Your task to perform on an android device: Open calendar and show me the third week of next month Image 0: 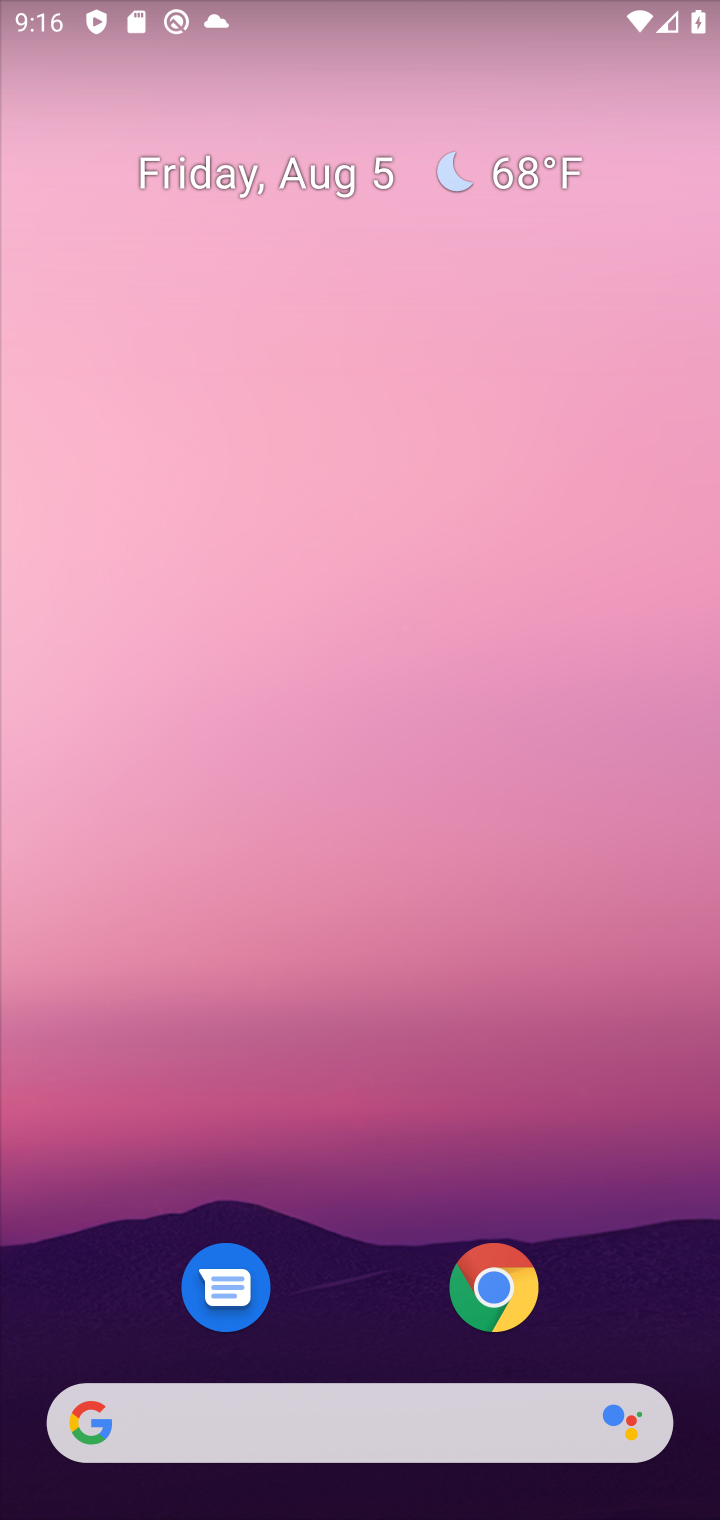
Step 0: drag from (379, 999) to (352, 219)
Your task to perform on an android device: Open calendar and show me the third week of next month Image 1: 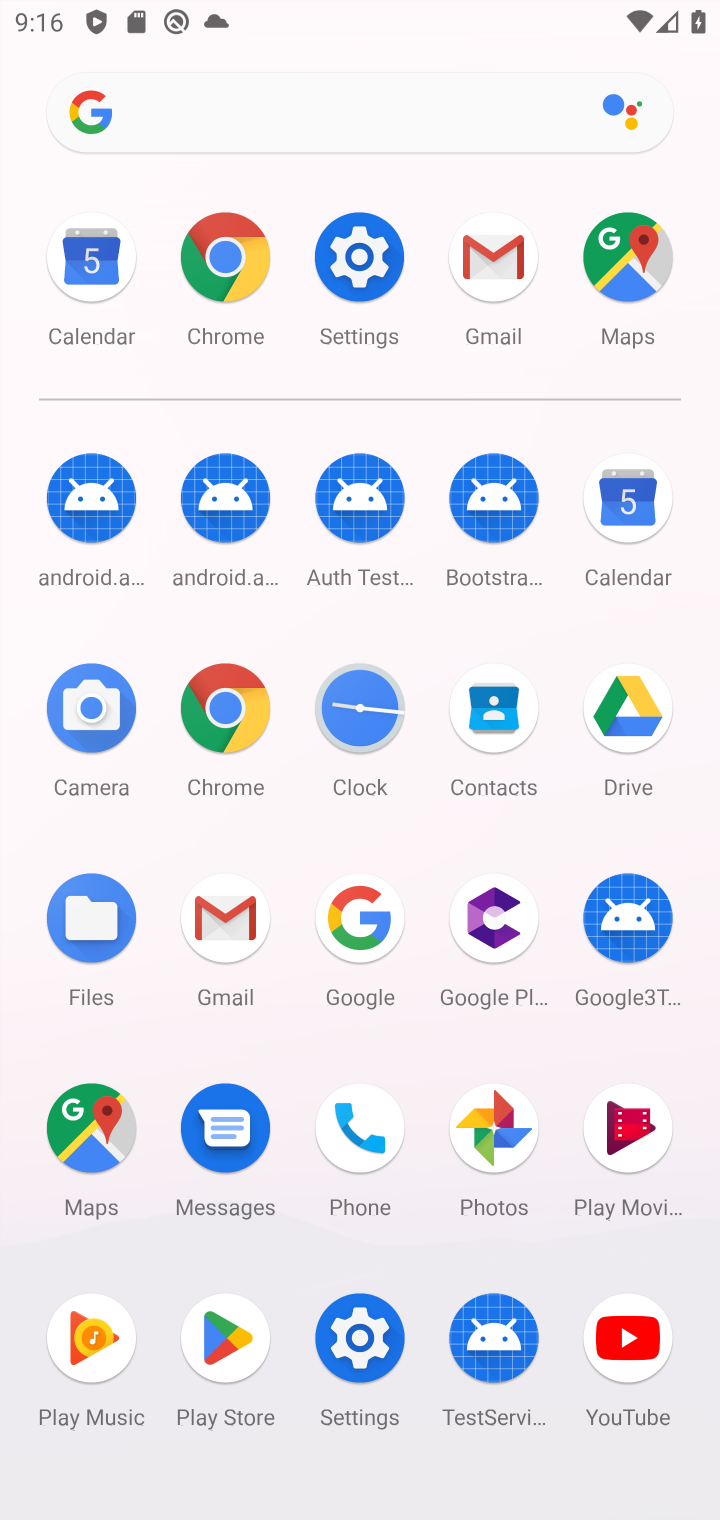
Step 1: click (621, 505)
Your task to perform on an android device: Open calendar and show me the third week of next month Image 2: 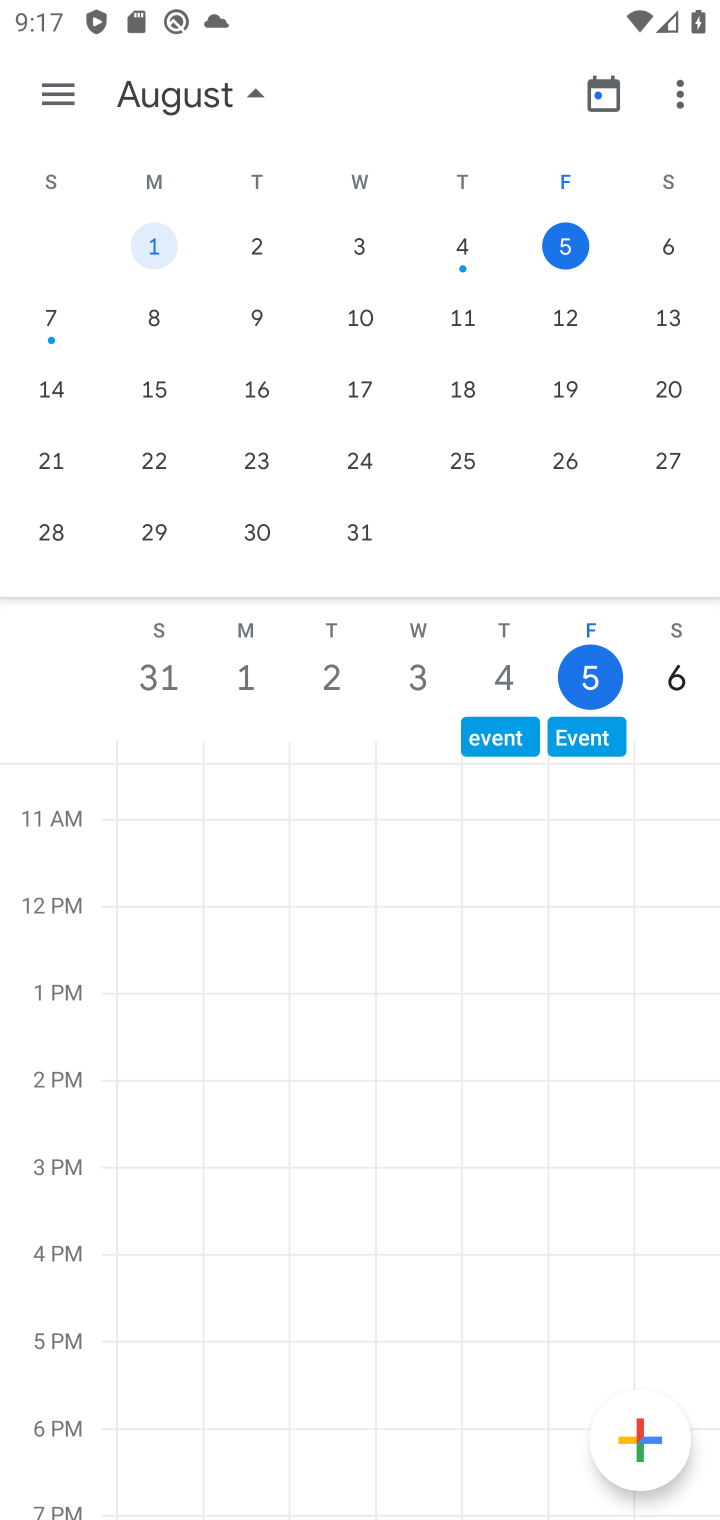
Step 2: drag from (575, 368) to (130, 360)
Your task to perform on an android device: Open calendar and show me the third week of next month Image 3: 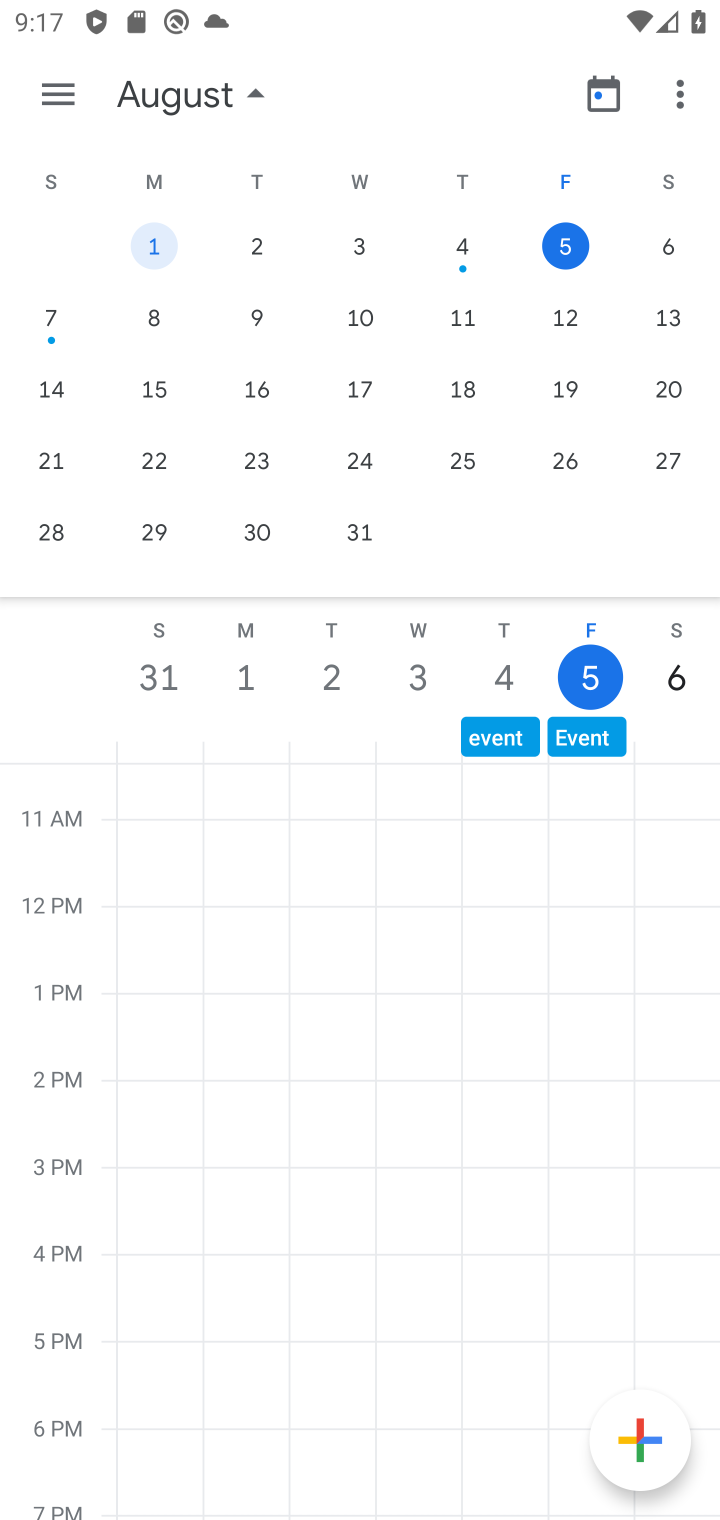
Step 3: click (162, 385)
Your task to perform on an android device: Open calendar and show me the third week of next month Image 4: 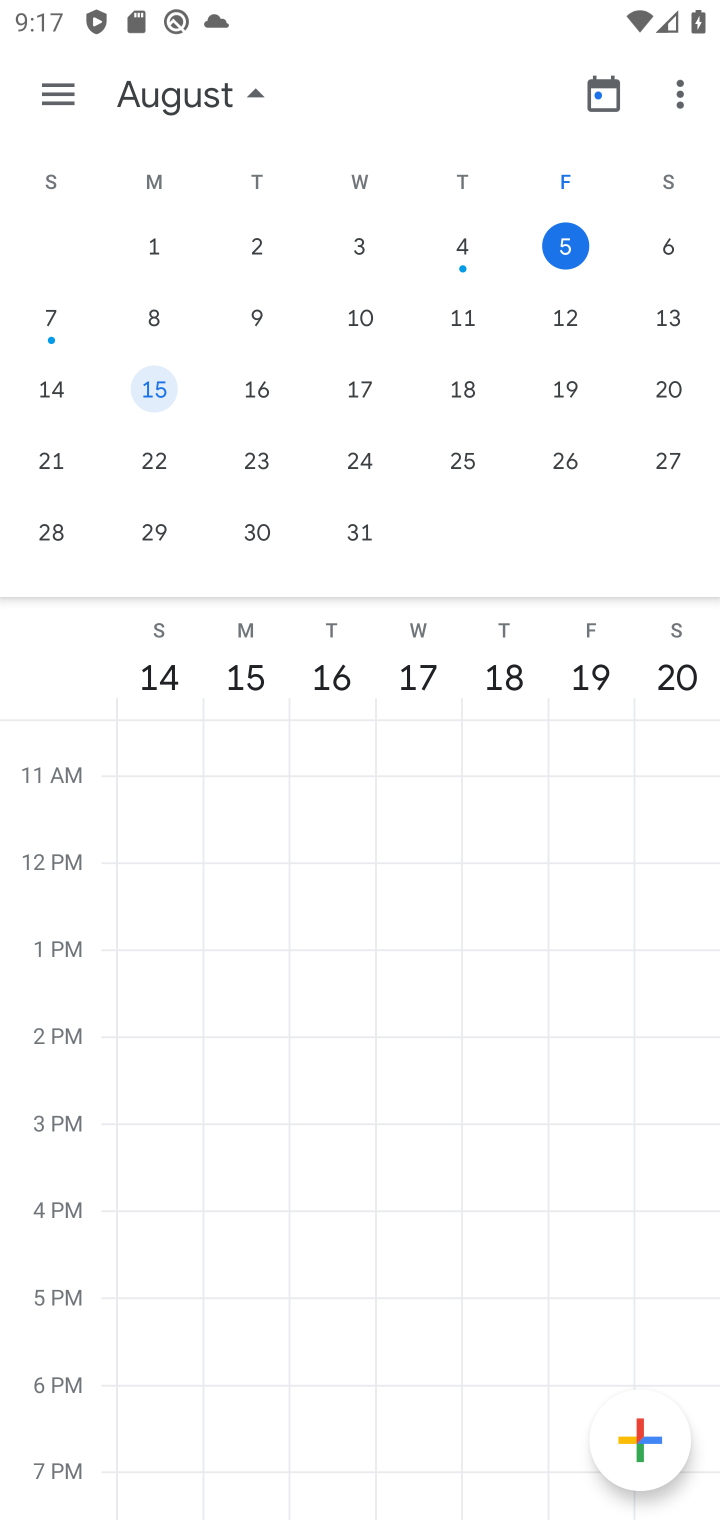
Step 4: click (155, 386)
Your task to perform on an android device: Open calendar and show me the third week of next month Image 5: 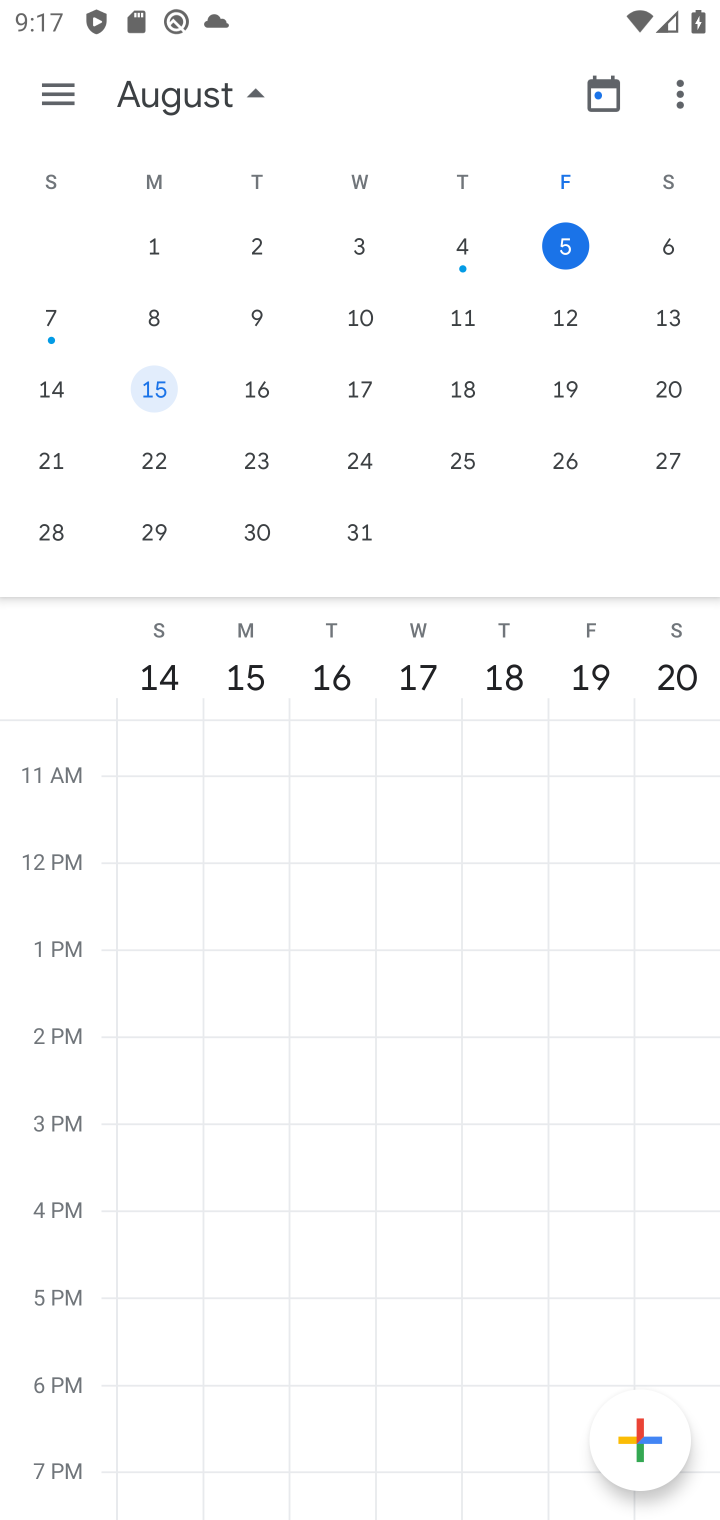
Step 5: click (53, 92)
Your task to perform on an android device: Open calendar and show me the third week of next month Image 6: 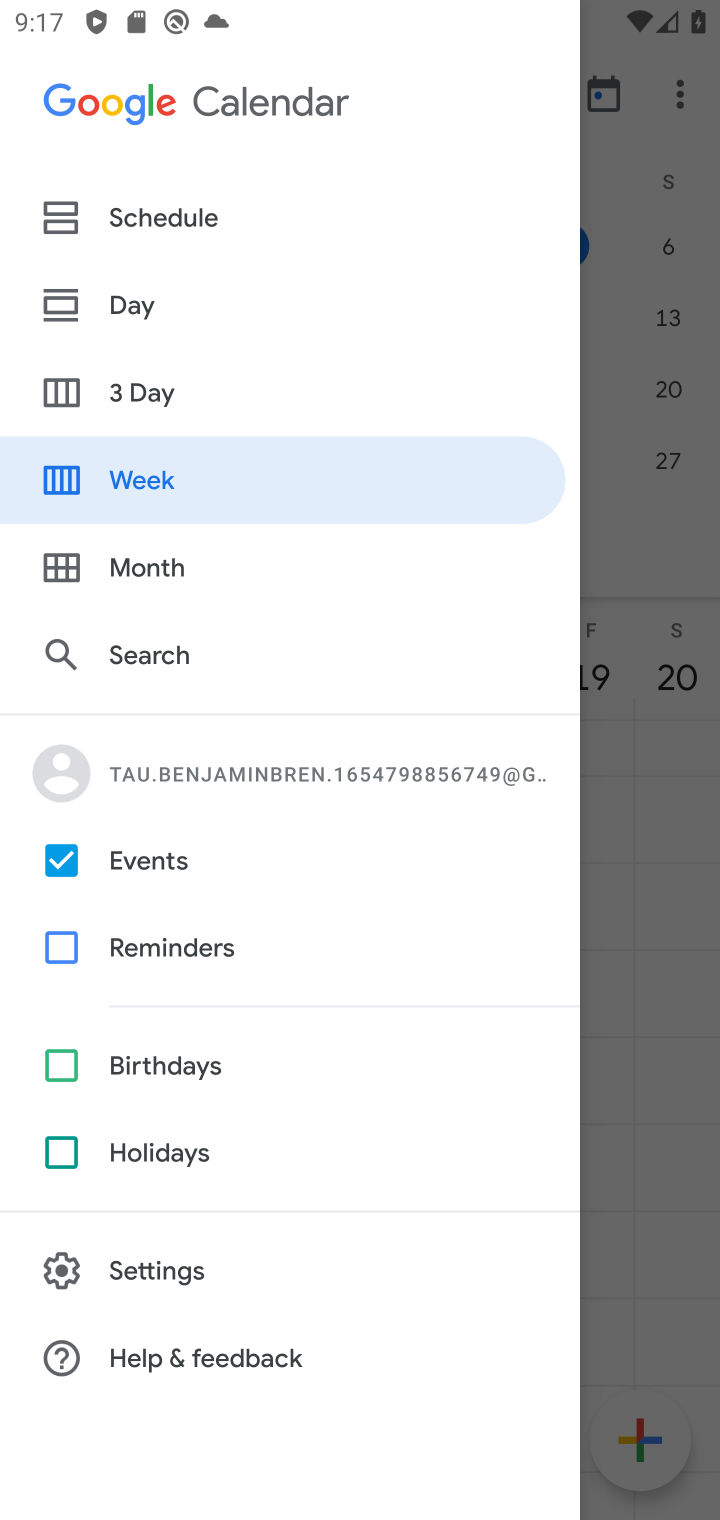
Step 6: click (142, 476)
Your task to perform on an android device: Open calendar and show me the third week of next month Image 7: 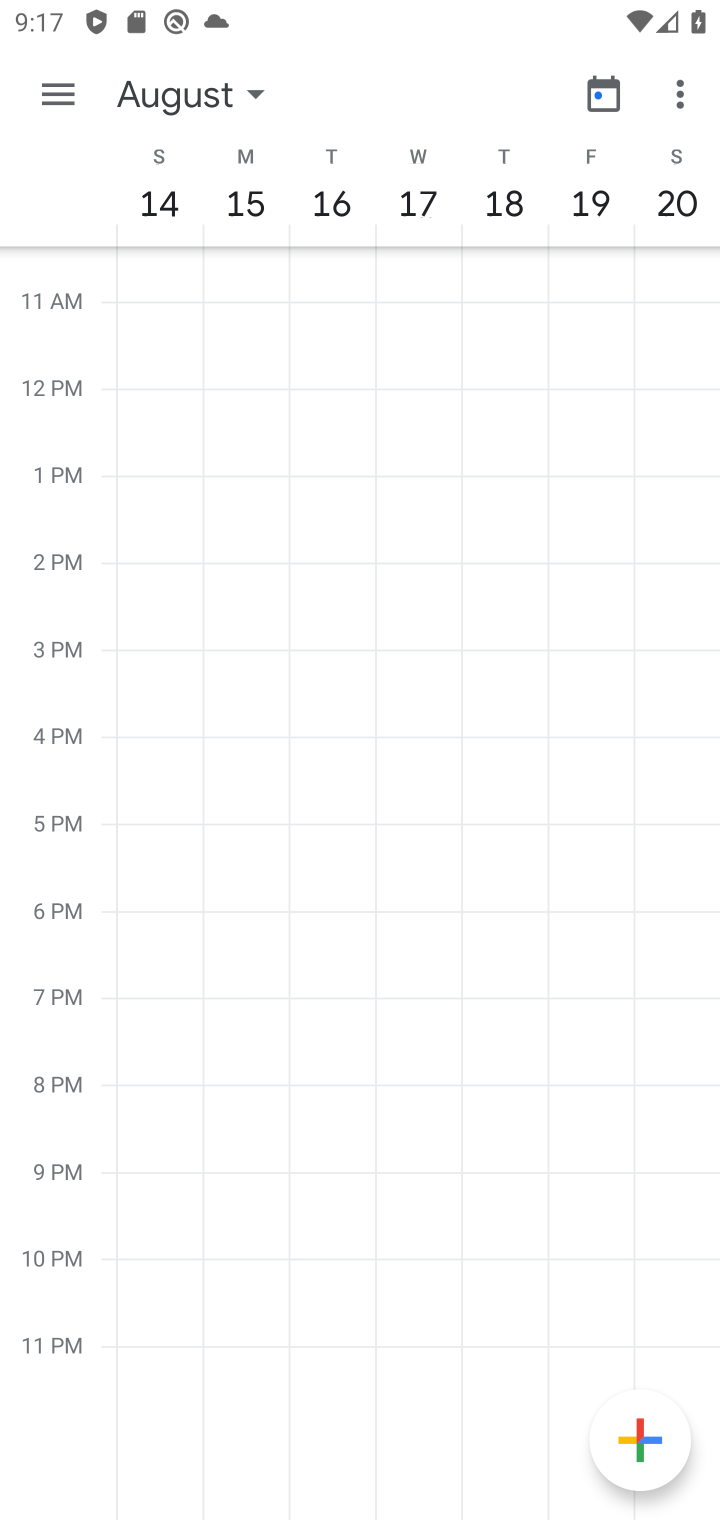
Step 7: task complete